Your task to perform on an android device: Go to Maps Image 0: 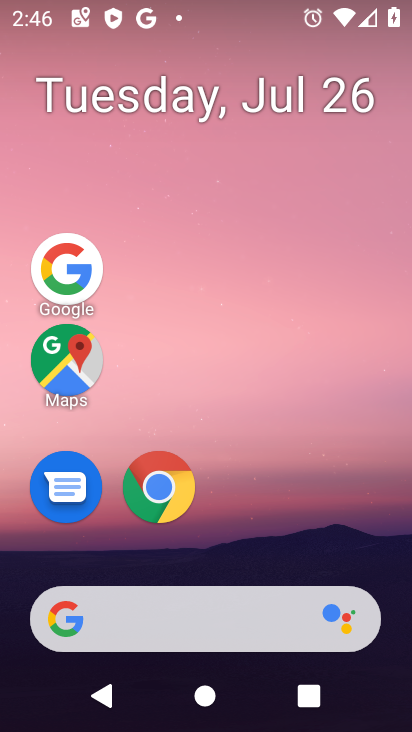
Step 0: drag from (204, 624) to (236, 103)
Your task to perform on an android device: Go to Maps Image 1: 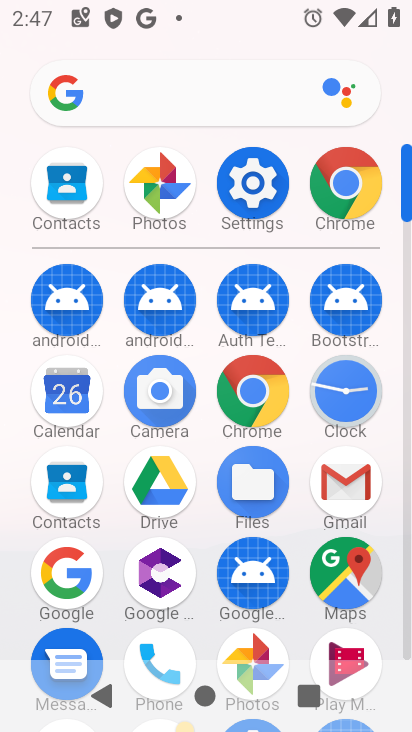
Step 1: click (331, 567)
Your task to perform on an android device: Go to Maps Image 2: 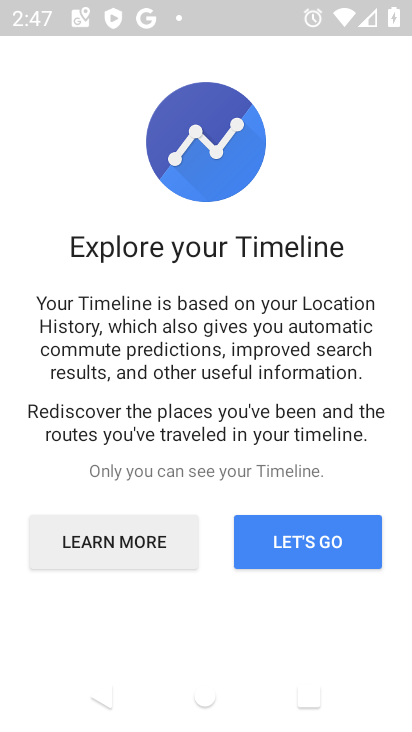
Step 2: click (328, 550)
Your task to perform on an android device: Go to Maps Image 3: 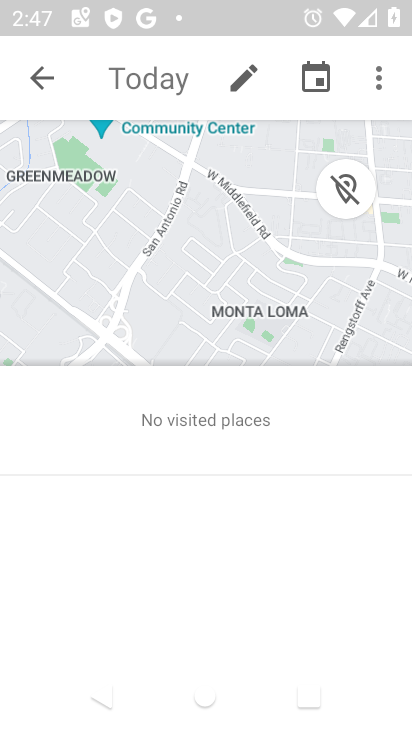
Step 3: task complete